Your task to perform on an android device: Open Maps and search for coffee Image 0: 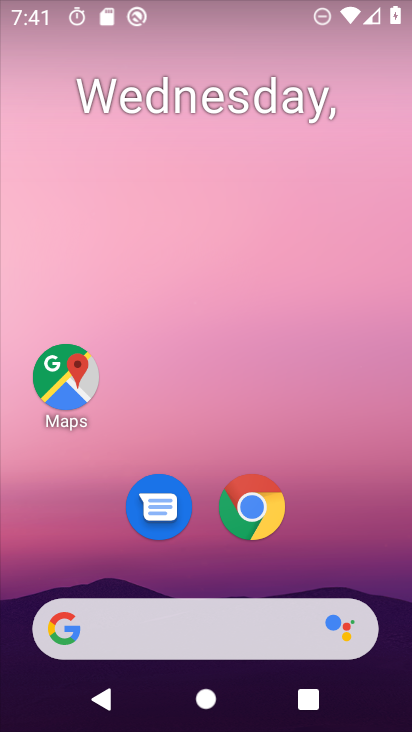
Step 0: click (63, 362)
Your task to perform on an android device: Open Maps and search for coffee Image 1: 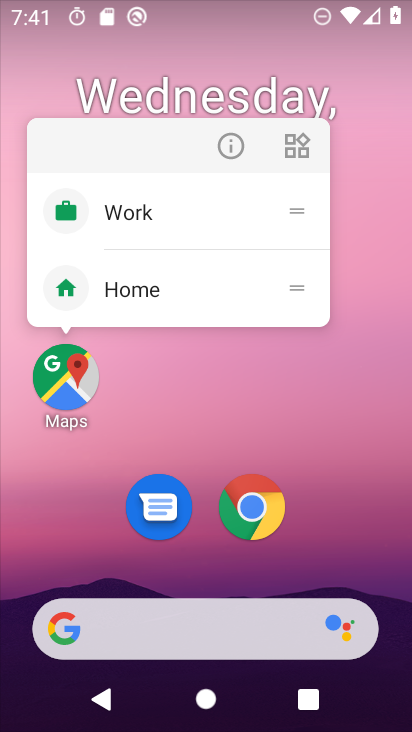
Step 1: click (72, 368)
Your task to perform on an android device: Open Maps and search for coffee Image 2: 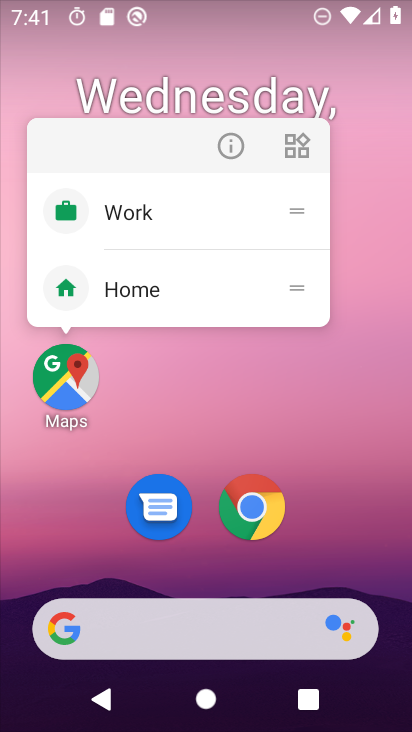
Step 2: click (171, 363)
Your task to perform on an android device: Open Maps and search for coffee Image 3: 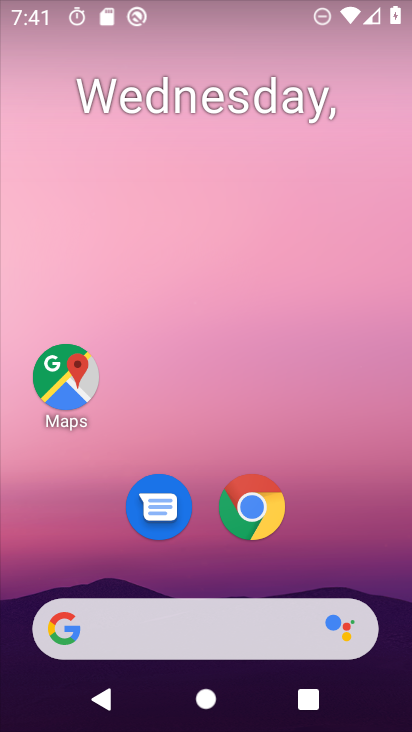
Step 3: click (78, 371)
Your task to perform on an android device: Open Maps and search for coffee Image 4: 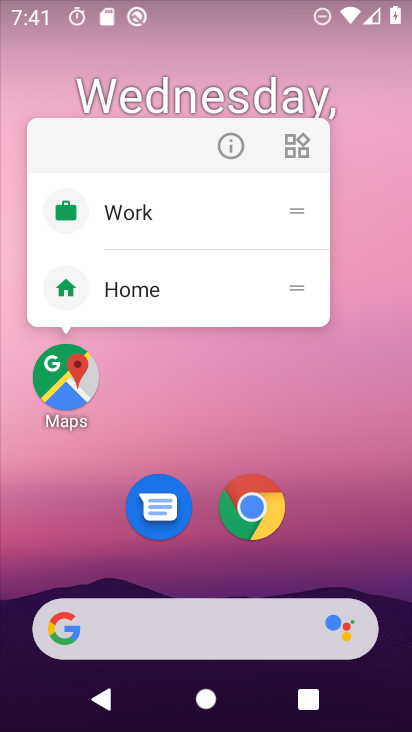
Step 4: click (69, 379)
Your task to perform on an android device: Open Maps and search for coffee Image 5: 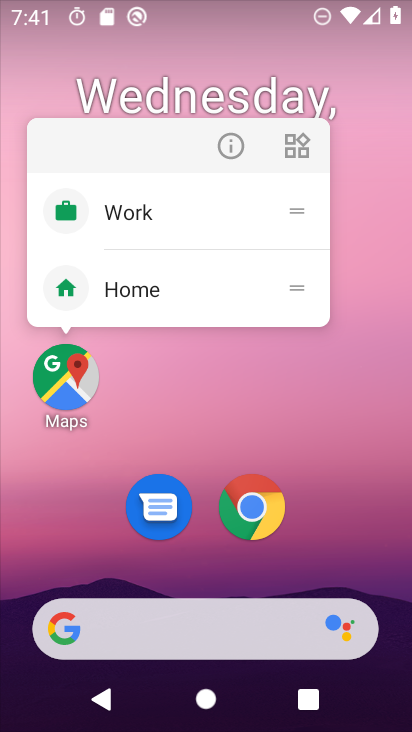
Step 5: drag from (157, 489) to (240, 608)
Your task to perform on an android device: Open Maps and search for coffee Image 6: 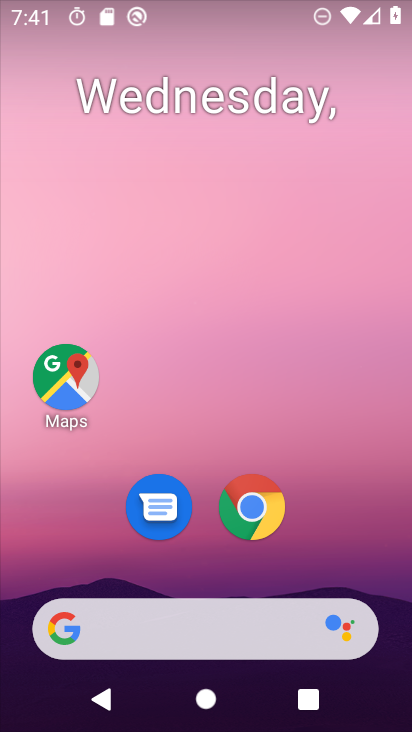
Step 6: drag from (246, 661) to (259, 215)
Your task to perform on an android device: Open Maps and search for coffee Image 7: 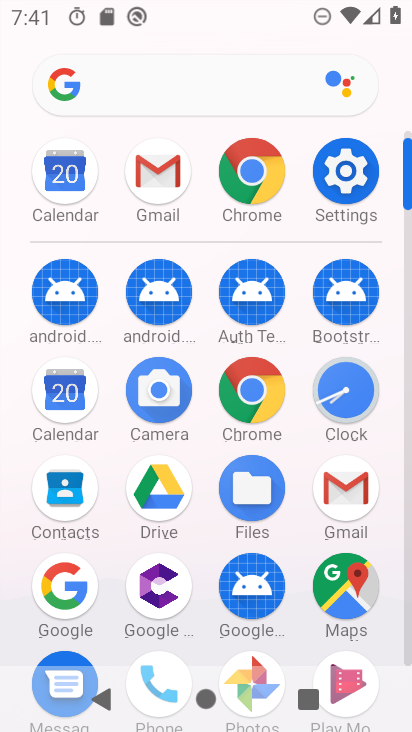
Step 7: click (352, 608)
Your task to perform on an android device: Open Maps and search for coffee Image 8: 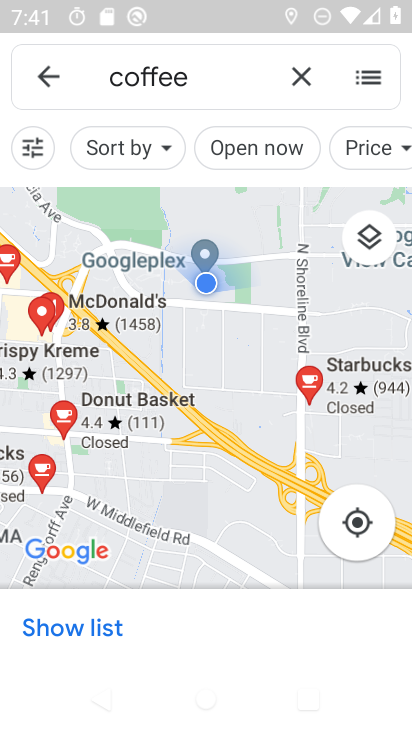
Step 8: click (200, 75)
Your task to perform on an android device: Open Maps and search for coffee Image 9: 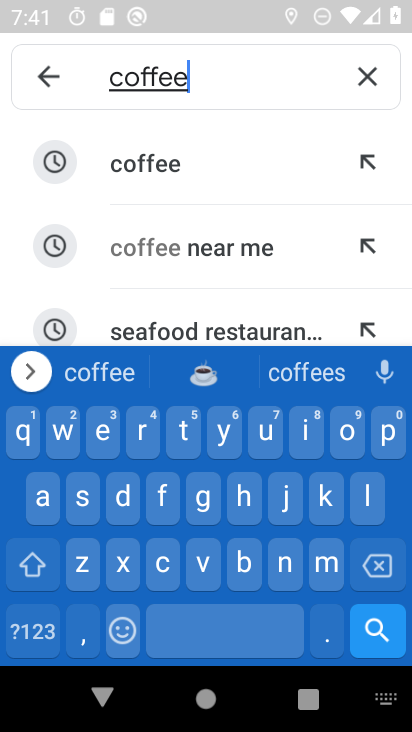
Step 9: click (164, 162)
Your task to perform on an android device: Open Maps and search for coffee Image 10: 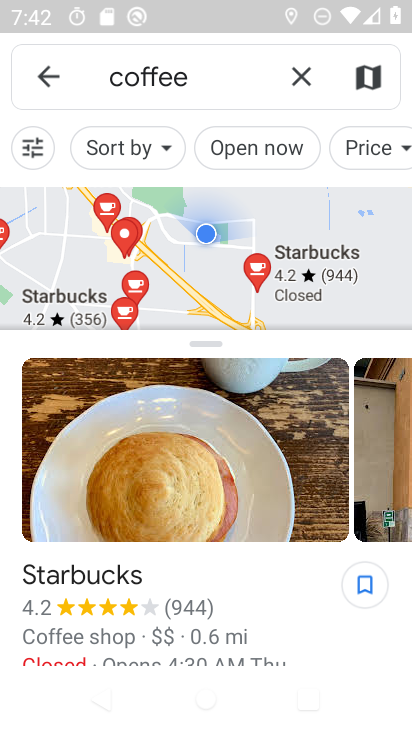
Step 10: task complete